Your task to perform on an android device: turn off translation in the chrome app Image 0: 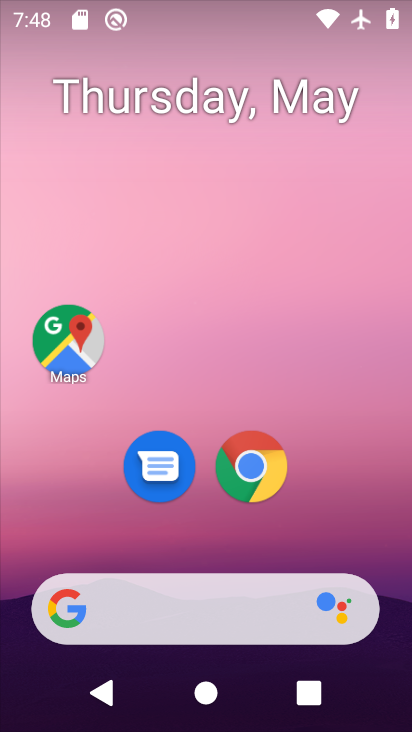
Step 0: click (272, 477)
Your task to perform on an android device: turn off translation in the chrome app Image 1: 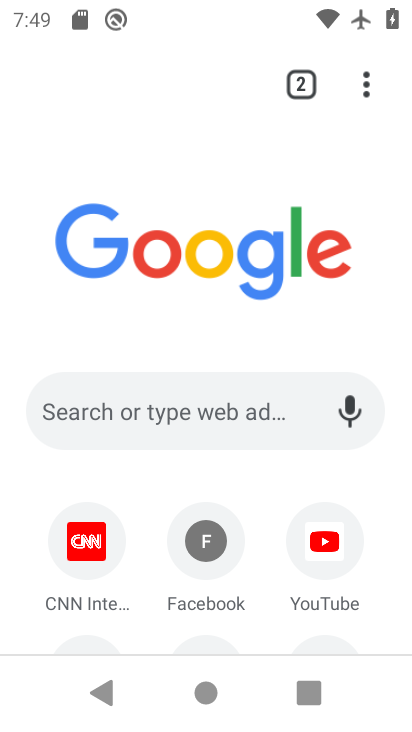
Step 1: click (373, 79)
Your task to perform on an android device: turn off translation in the chrome app Image 2: 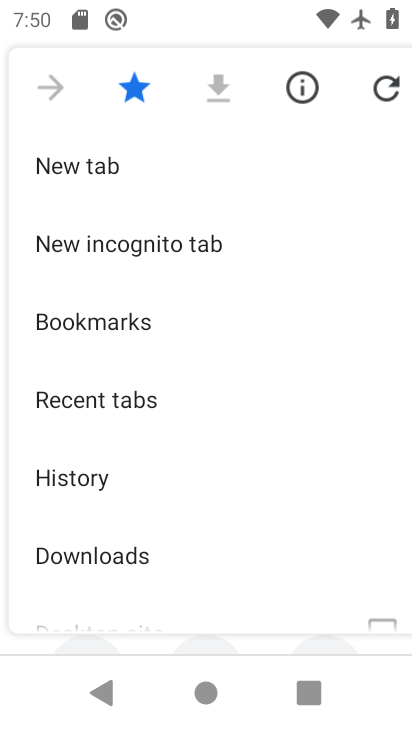
Step 2: drag from (151, 496) to (189, 150)
Your task to perform on an android device: turn off translation in the chrome app Image 3: 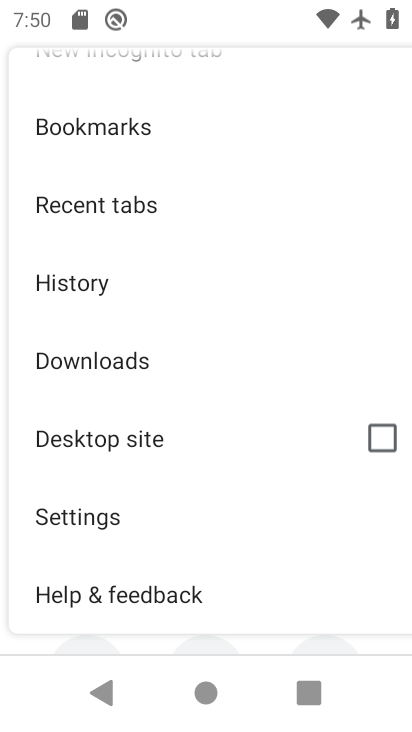
Step 3: click (180, 541)
Your task to perform on an android device: turn off translation in the chrome app Image 4: 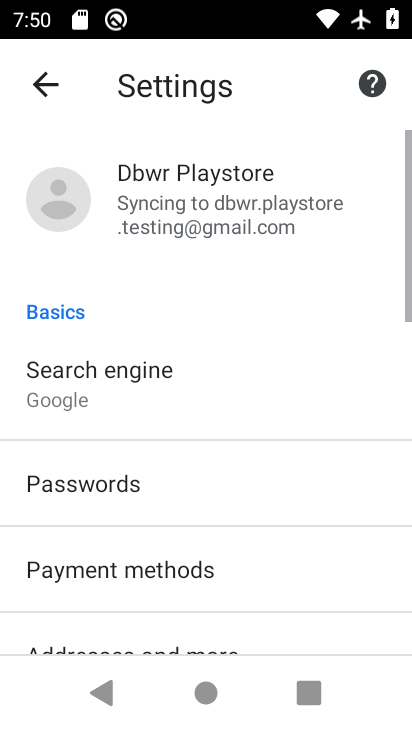
Step 4: drag from (184, 602) to (262, 126)
Your task to perform on an android device: turn off translation in the chrome app Image 5: 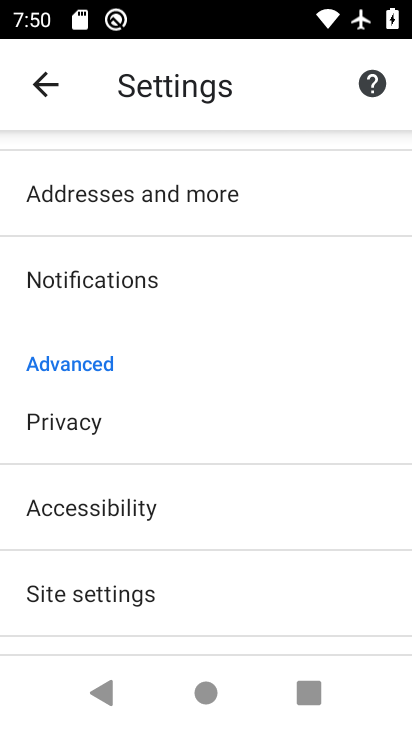
Step 5: drag from (194, 549) to (244, 372)
Your task to perform on an android device: turn off translation in the chrome app Image 6: 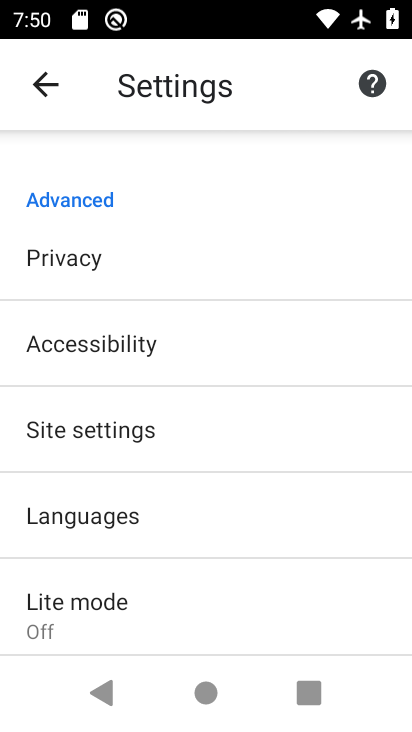
Step 6: click (191, 501)
Your task to perform on an android device: turn off translation in the chrome app Image 7: 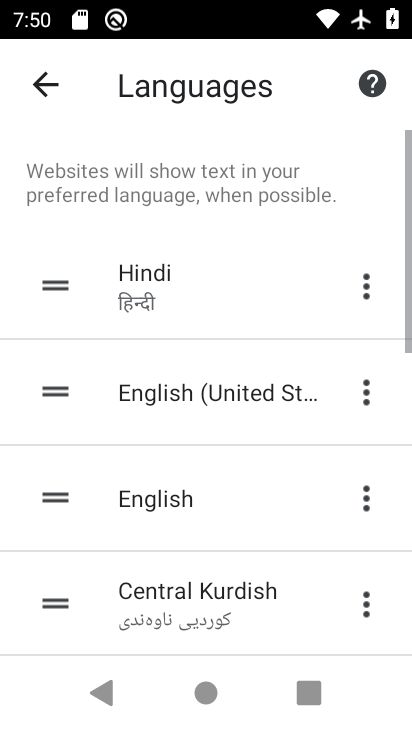
Step 7: drag from (226, 581) to (262, 329)
Your task to perform on an android device: turn off translation in the chrome app Image 8: 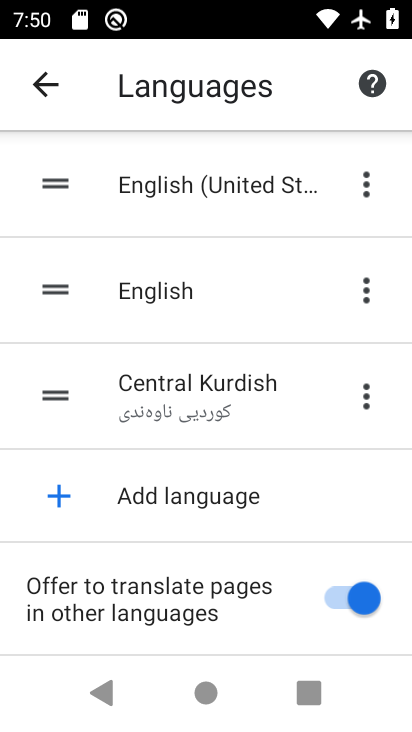
Step 8: click (302, 581)
Your task to perform on an android device: turn off translation in the chrome app Image 9: 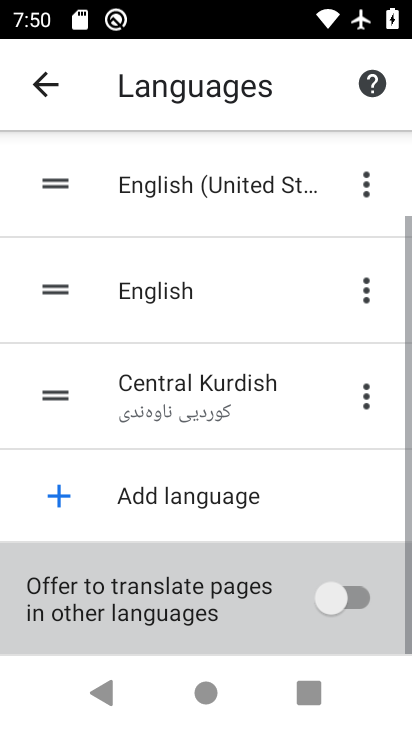
Step 9: click (302, 581)
Your task to perform on an android device: turn off translation in the chrome app Image 10: 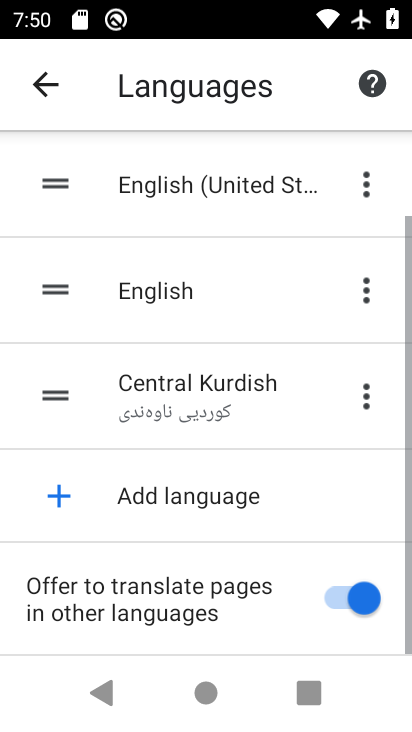
Step 10: click (302, 581)
Your task to perform on an android device: turn off translation in the chrome app Image 11: 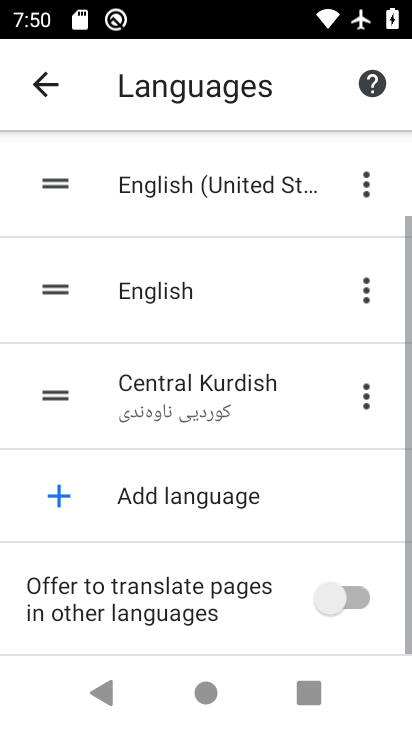
Step 11: task complete